Your task to perform on an android device: turn vacation reply on in the gmail app Image 0: 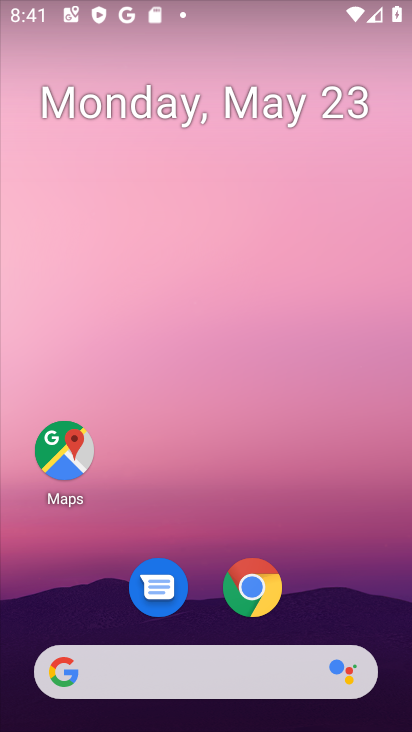
Step 0: drag from (110, 572) to (245, 44)
Your task to perform on an android device: turn vacation reply on in the gmail app Image 1: 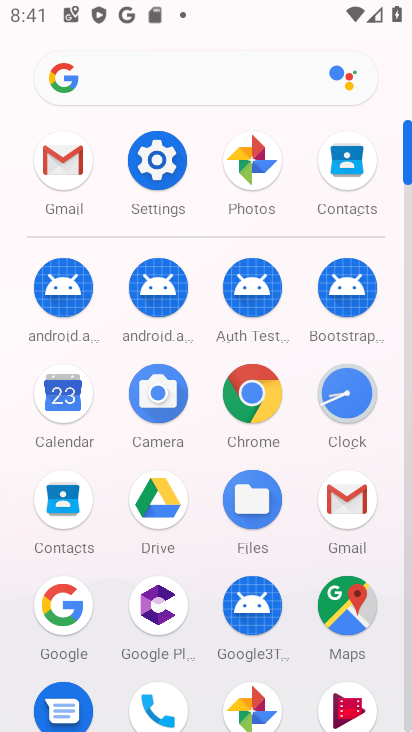
Step 1: click (53, 164)
Your task to perform on an android device: turn vacation reply on in the gmail app Image 2: 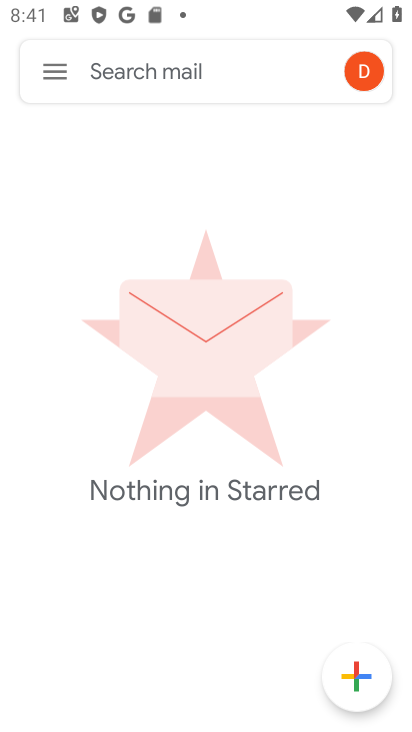
Step 2: click (57, 75)
Your task to perform on an android device: turn vacation reply on in the gmail app Image 3: 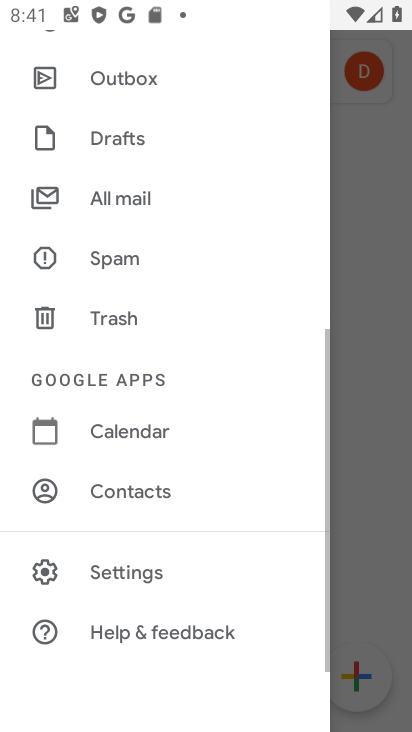
Step 3: click (118, 557)
Your task to perform on an android device: turn vacation reply on in the gmail app Image 4: 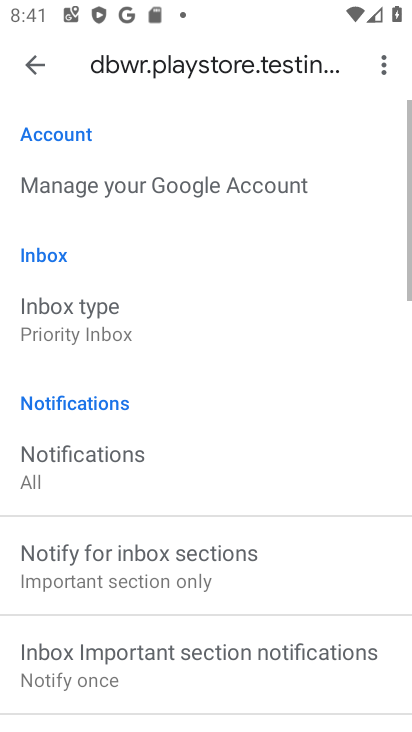
Step 4: drag from (149, 538) to (206, 99)
Your task to perform on an android device: turn vacation reply on in the gmail app Image 5: 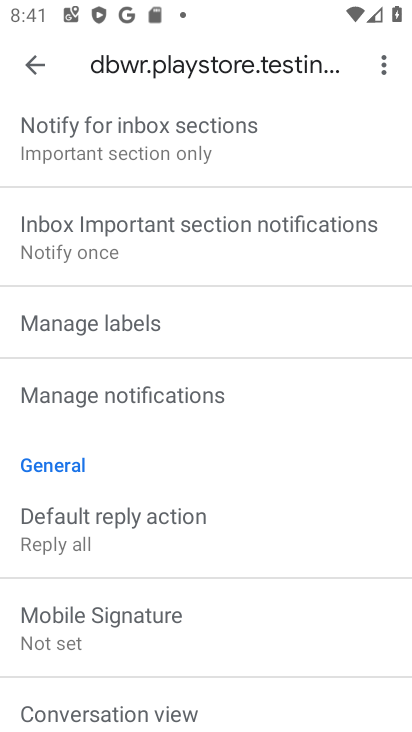
Step 5: drag from (127, 603) to (207, 138)
Your task to perform on an android device: turn vacation reply on in the gmail app Image 6: 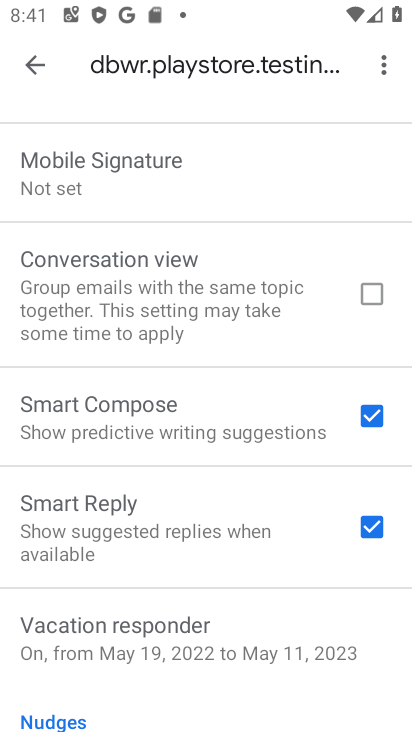
Step 6: click (155, 657)
Your task to perform on an android device: turn vacation reply on in the gmail app Image 7: 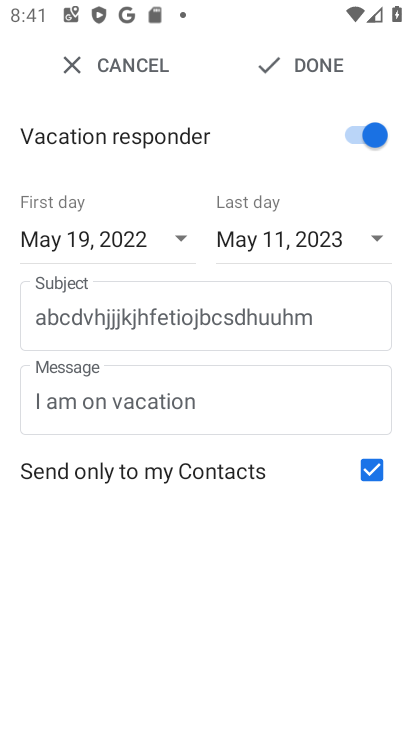
Step 7: task complete